Your task to perform on an android device: move an email to a new category in the gmail app Image 0: 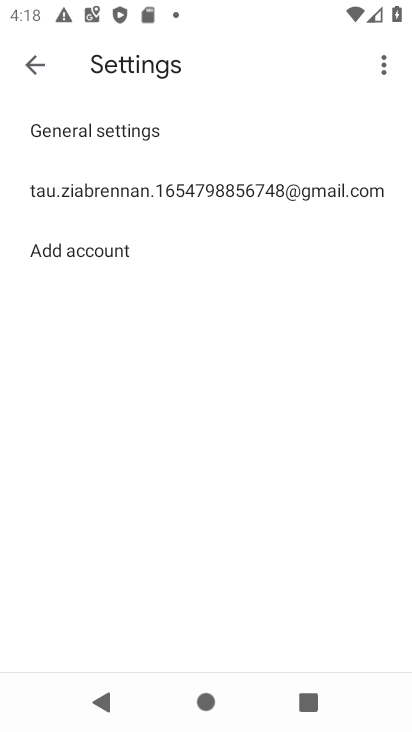
Step 0: click (43, 71)
Your task to perform on an android device: move an email to a new category in the gmail app Image 1: 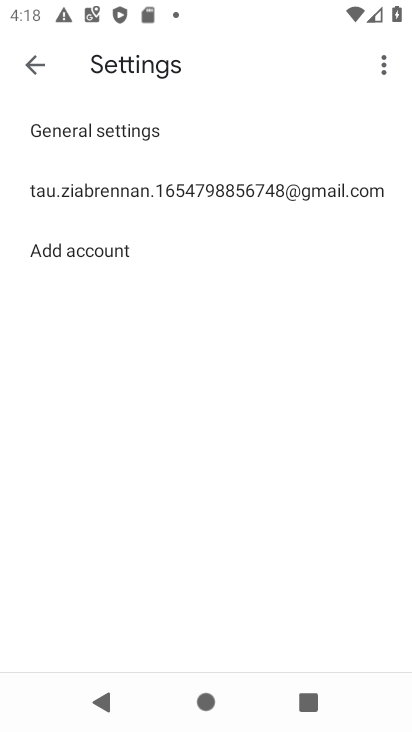
Step 1: click (42, 67)
Your task to perform on an android device: move an email to a new category in the gmail app Image 2: 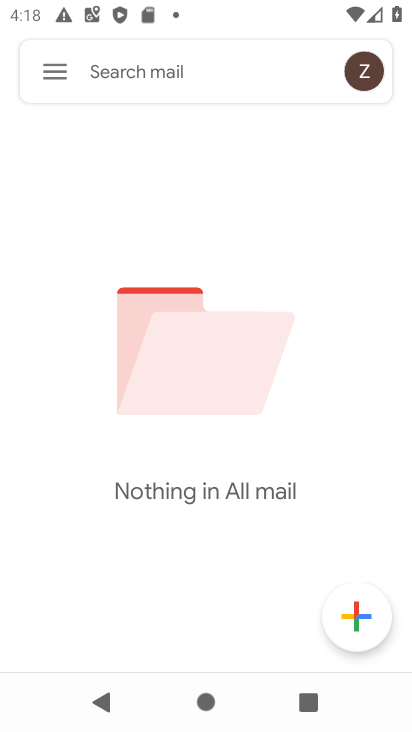
Step 2: task complete